Your task to perform on an android device: change text size in settings app Image 0: 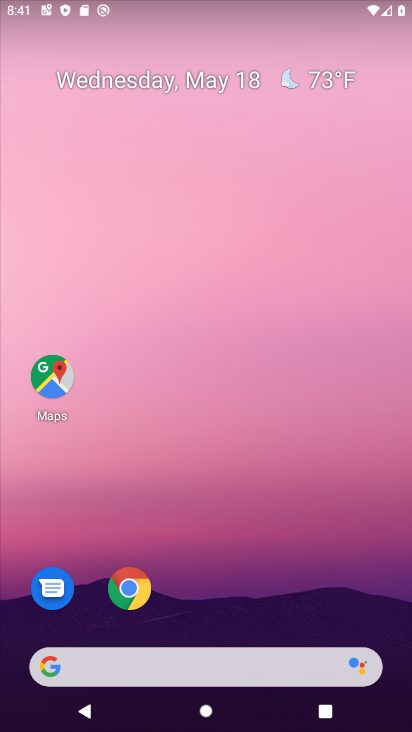
Step 0: drag from (258, 573) to (279, 242)
Your task to perform on an android device: change text size in settings app Image 1: 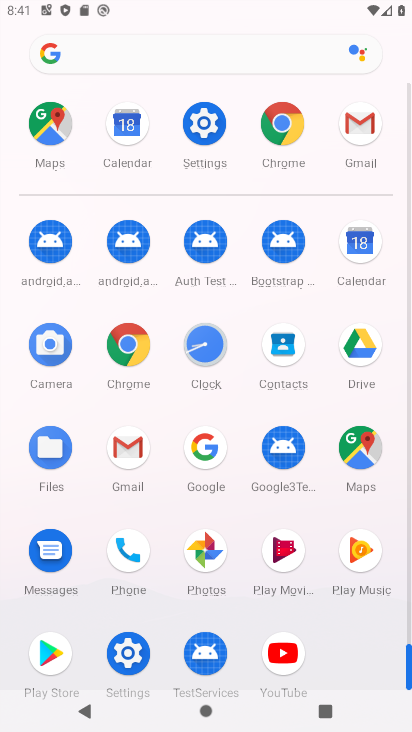
Step 1: click (211, 145)
Your task to perform on an android device: change text size in settings app Image 2: 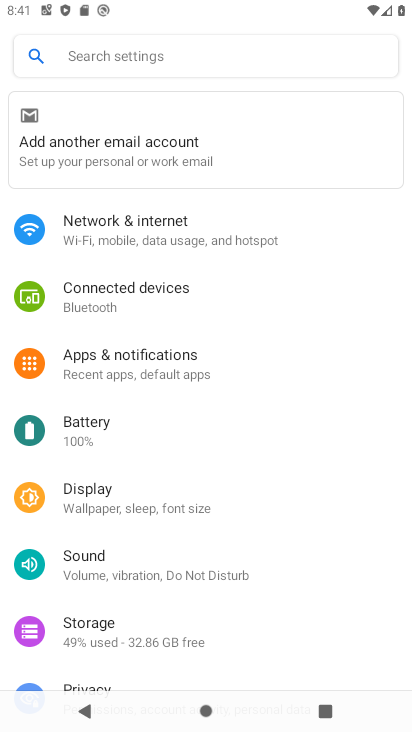
Step 2: click (110, 494)
Your task to perform on an android device: change text size in settings app Image 3: 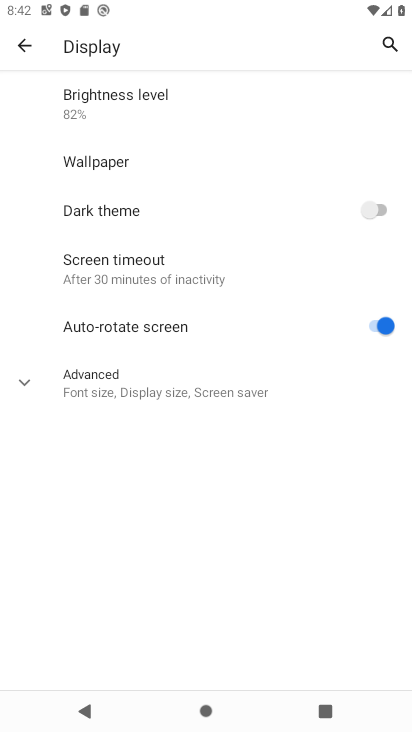
Step 3: task complete